Your task to perform on an android device: Open the stopwatch Image 0: 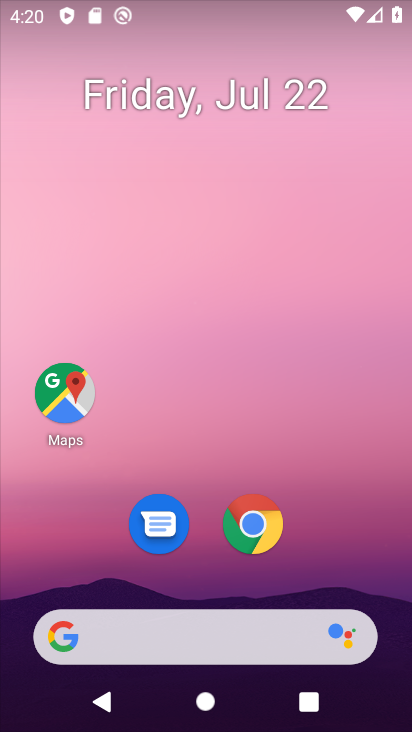
Step 0: drag from (330, 561) to (313, 90)
Your task to perform on an android device: Open the stopwatch Image 1: 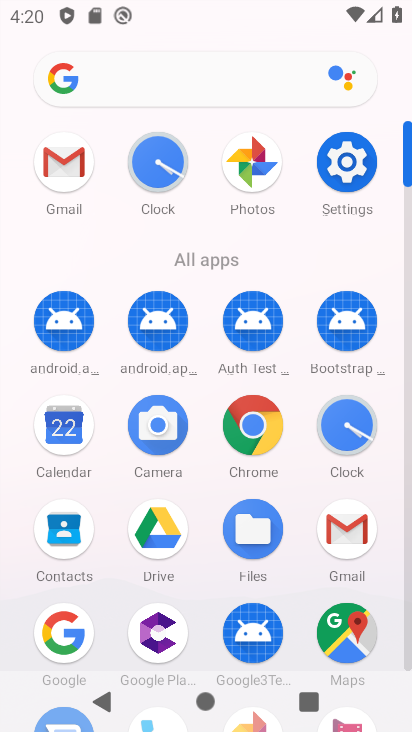
Step 1: click (165, 162)
Your task to perform on an android device: Open the stopwatch Image 2: 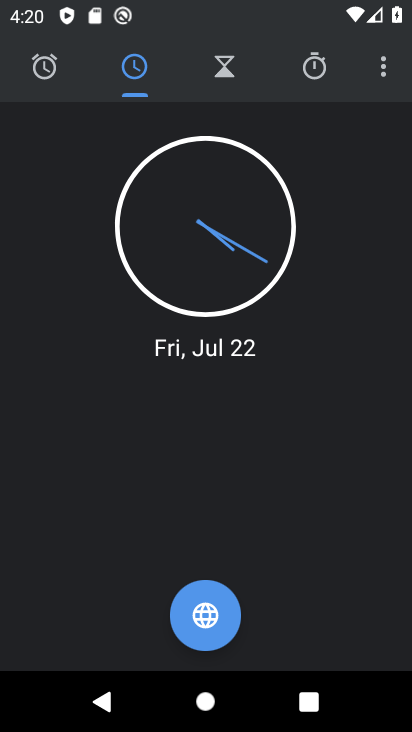
Step 2: click (310, 66)
Your task to perform on an android device: Open the stopwatch Image 3: 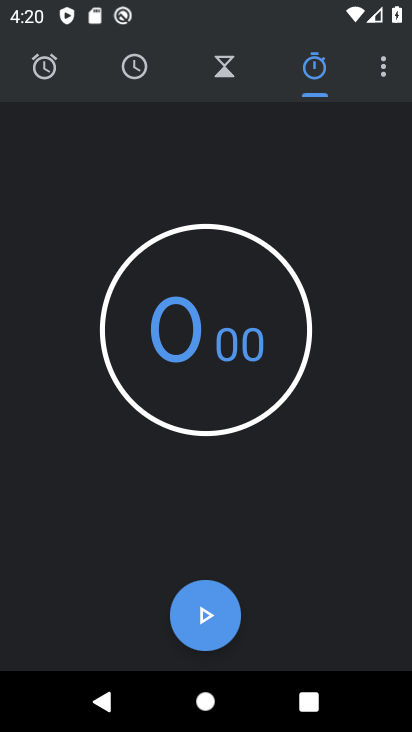
Step 3: task complete